Your task to perform on an android device: turn on location history Image 0: 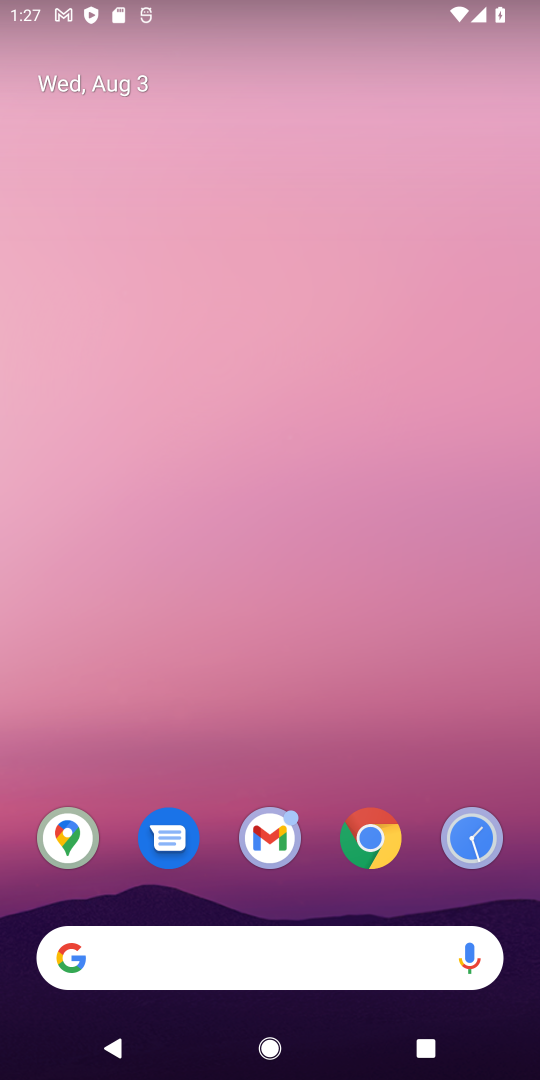
Step 0: drag from (246, 826) to (380, 8)
Your task to perform on an android device: turn on location history Image 1: 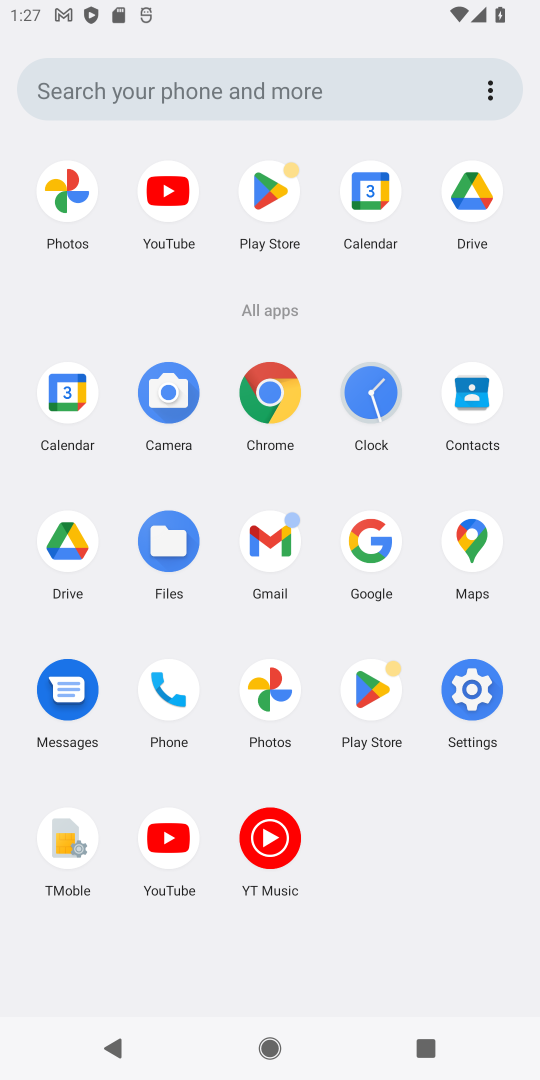
Step 1: click (471, 714)
Your task to perform on an android device: turn on location history Image 2: 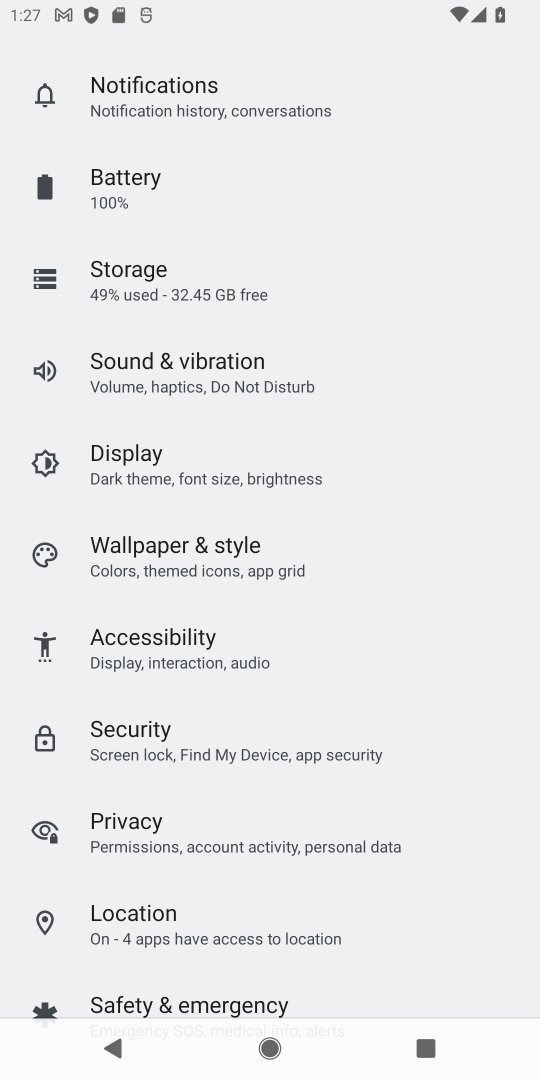
Step 2: click (126, 929)
Your task to perform on an android device: turn on location history Image 3: 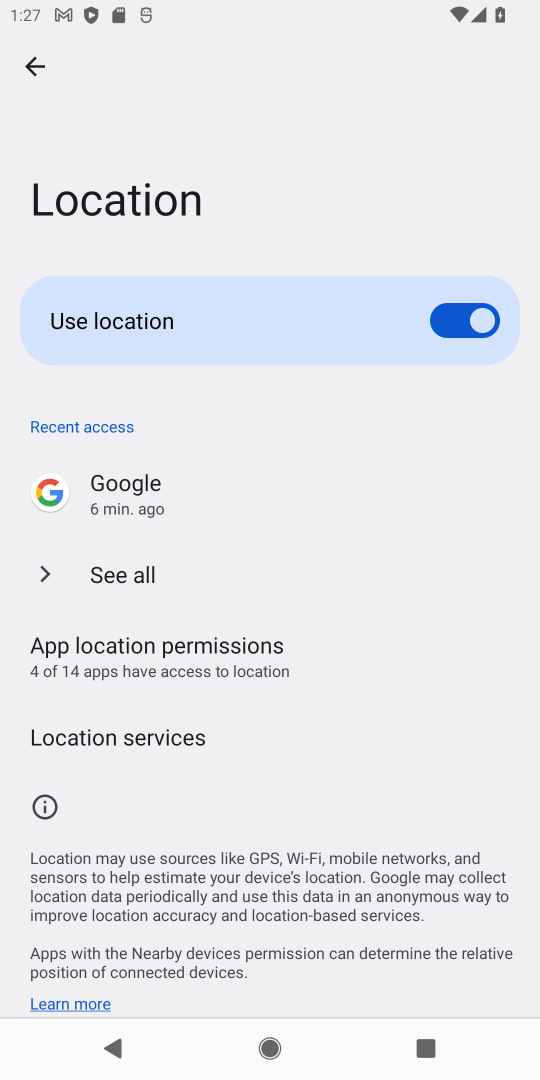
Step 3: click (168, 660)
Your task to perform on an android device: turn on location history Image 4: 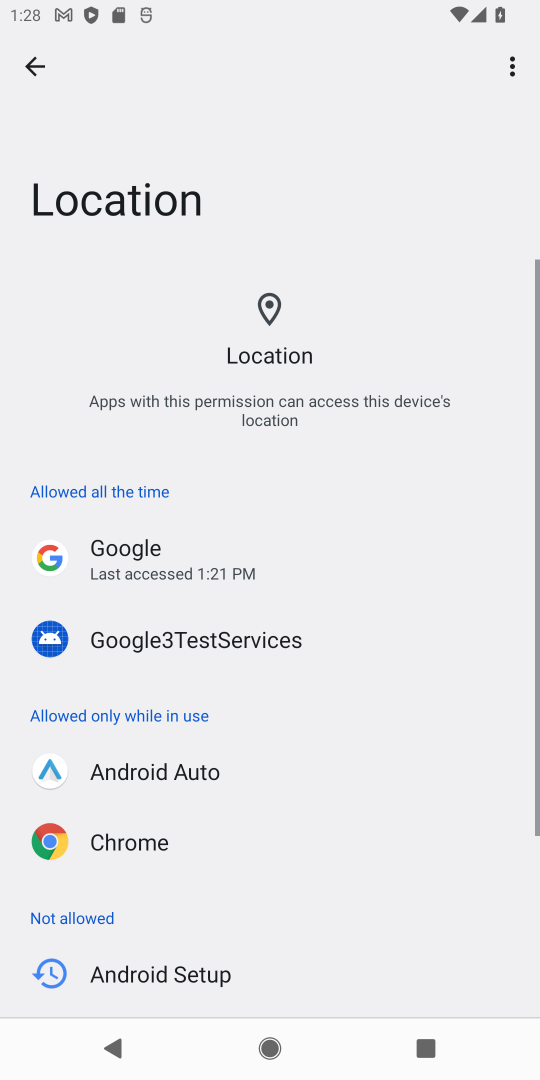
Step 4: click (29, 59)
Your task to perform on an android device: turn on location history Image 5: 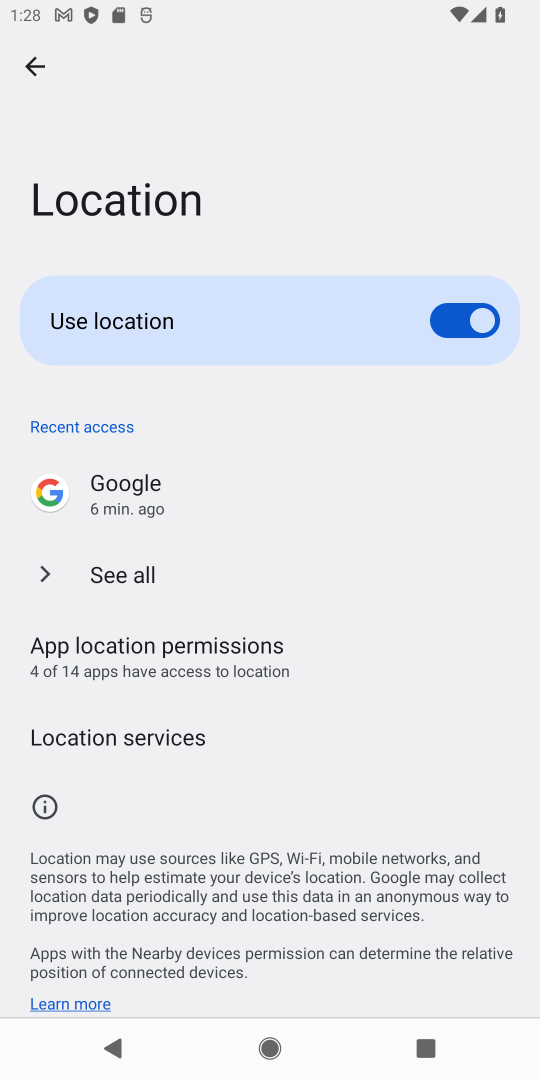
Step 5: click (67, 763)
Your task to perform on an android device: turn on location history Image 6: 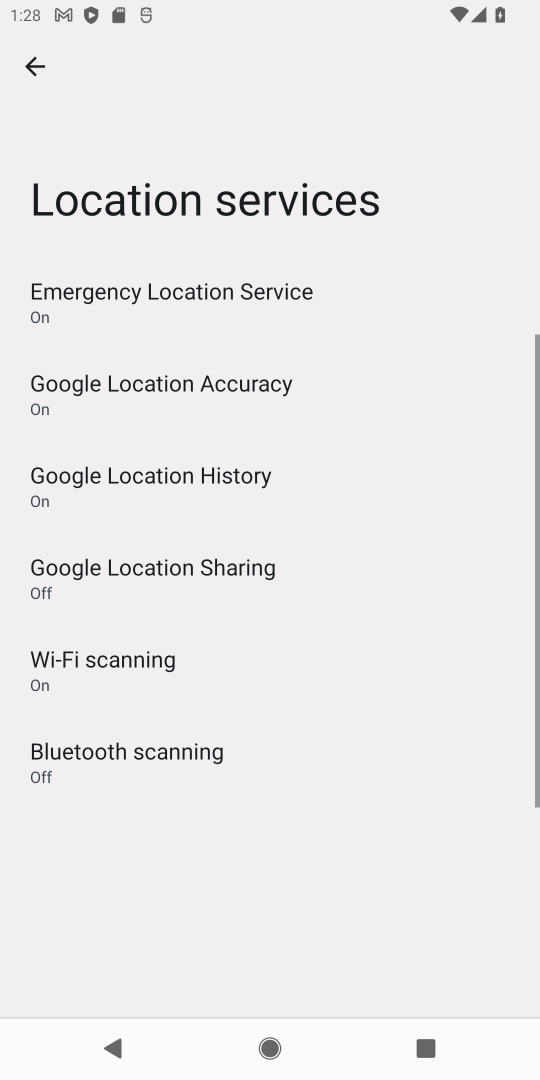
Step 6: click (122, 479)
Your task to perform on an android device: turn on location history Image 7: 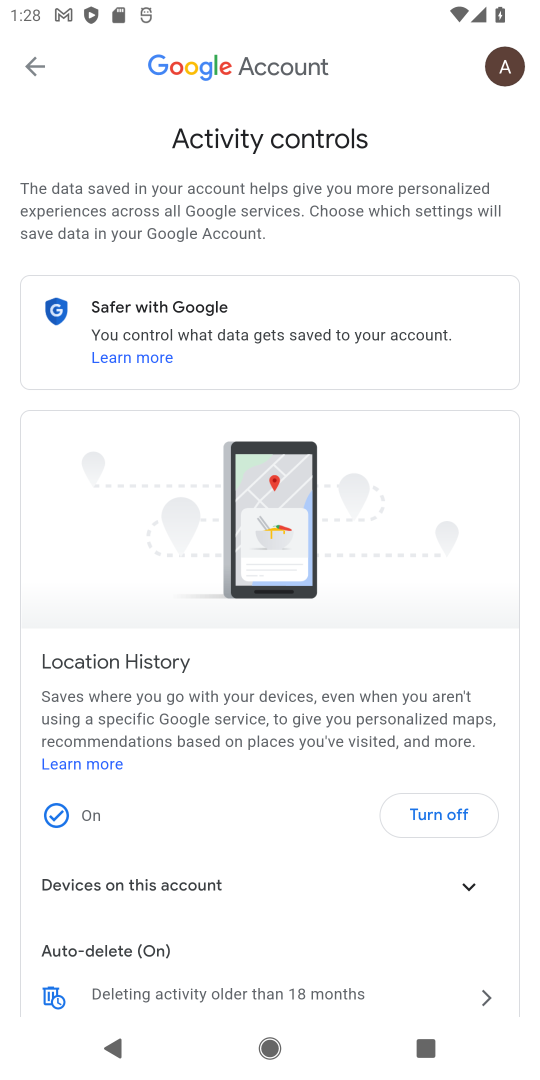
Step 7: task complete